Your task to perform on an android device: What's the weather? Image 0: 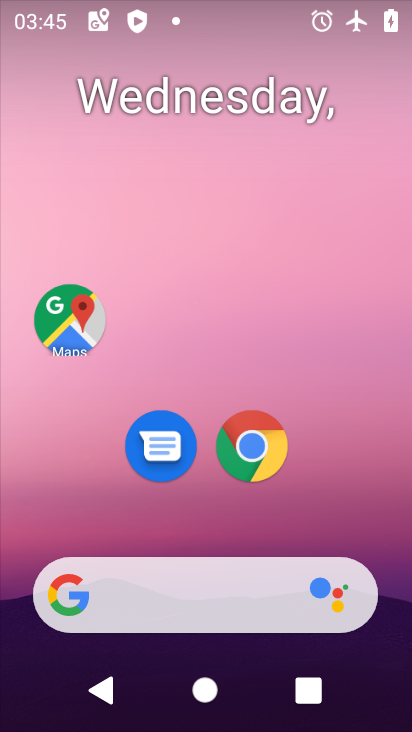
Step 0: drag from (212, 504) to (185, 184)
Your task to perform on an android device: What's the weather? Image 1: 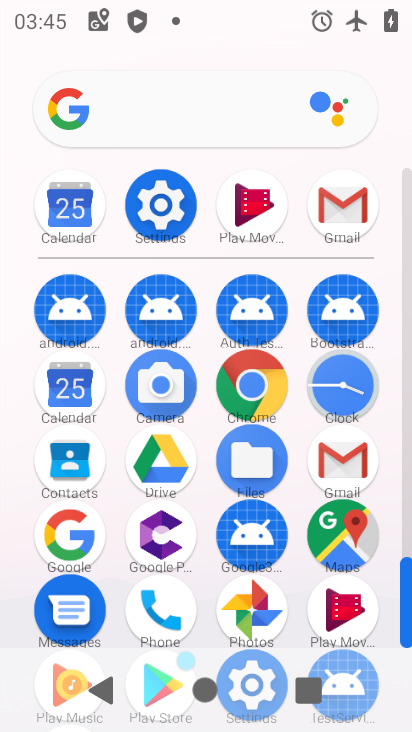
Step 1: click (77, 522)
Your task to perform on an android device: What's the weather? Image 2: 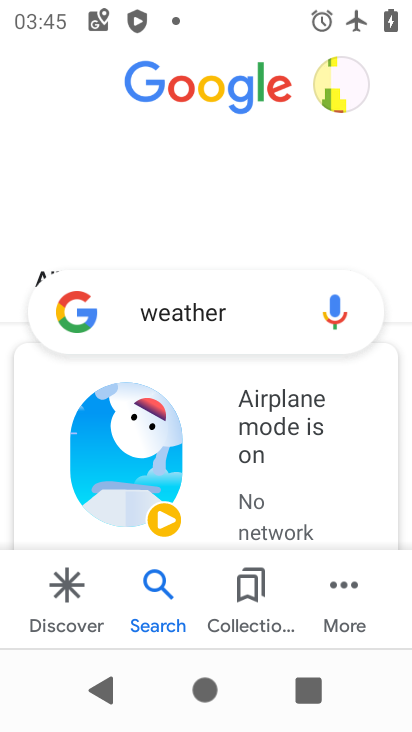
Step 2: task complete